Your task to perform on an android device: Open Reddit.com Image 0: 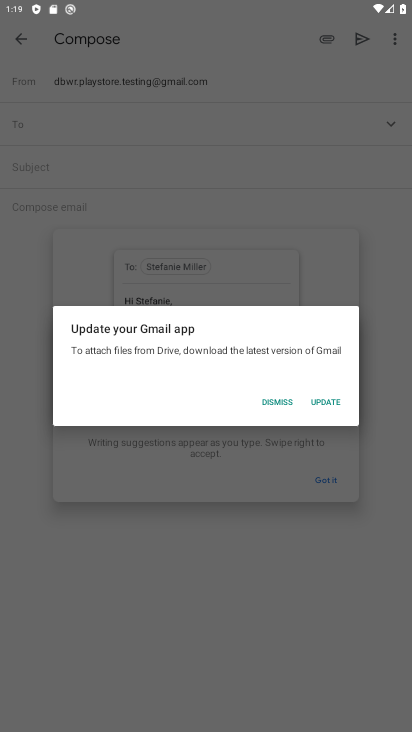
Step 0: press home button
Your task to perform on an android device: Open Reddit.com Image 1: 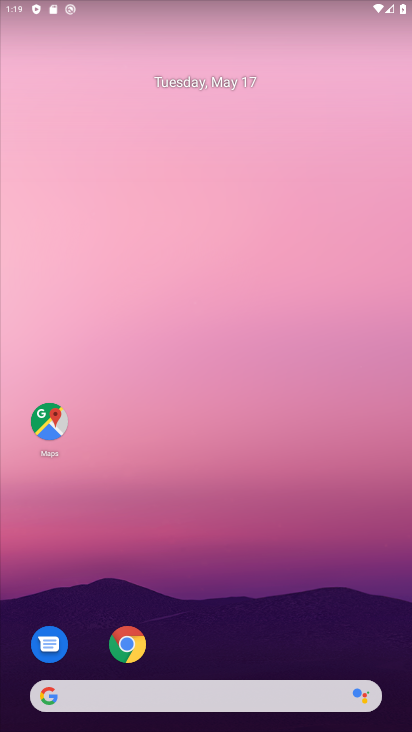
Step 1: click (131, 642)
Your task to perform on an android device: Open Reddit.com Image 2: 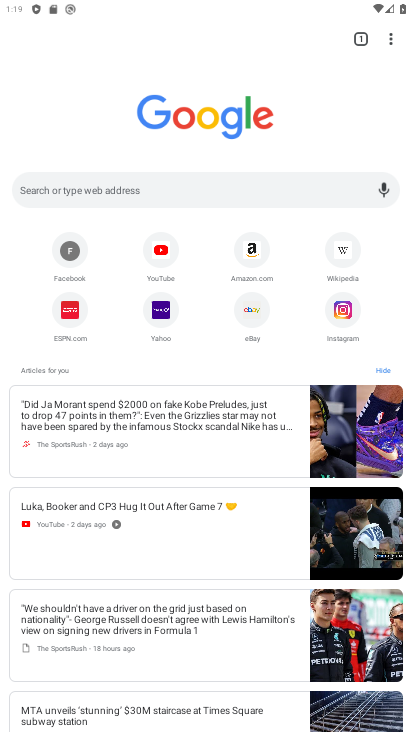
Step 2: click (196, 192)
Your task to perform on an android device: Open Reddit.com Image 3: 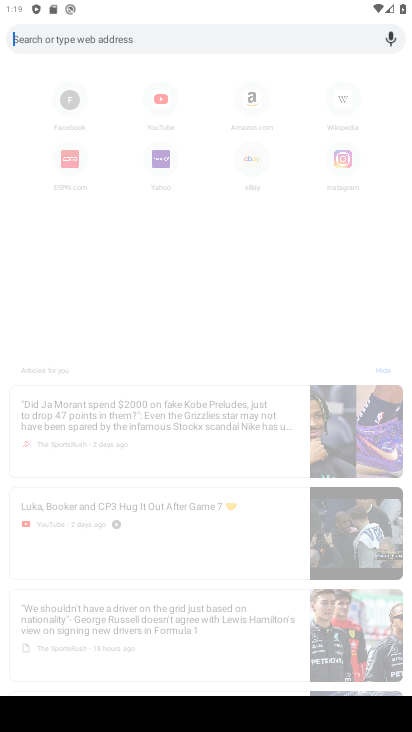
Step 3: type "reddit.com"
Your task to perform on an android device: Open Reddit.com Image 4: 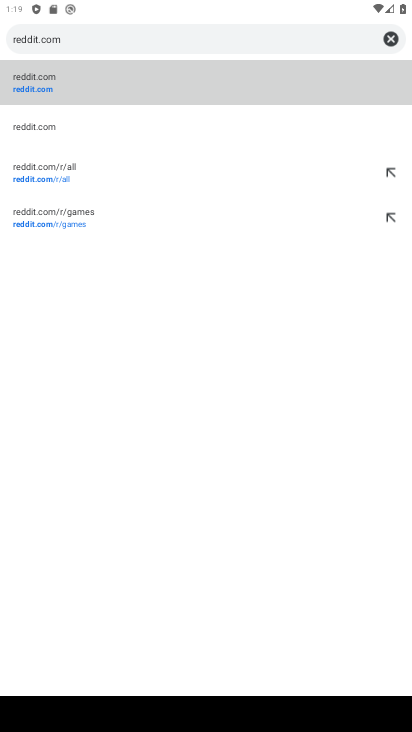
Step 4: click (59, 83)
Your task to perform on an android device: Open Reddit.com Image 5: 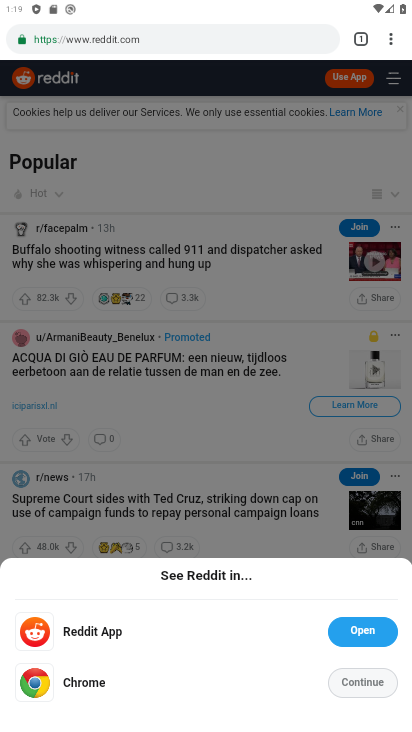
Step 5: click (365, 670)
Your task to perform on an android device: Open Reddit.com Image 6: 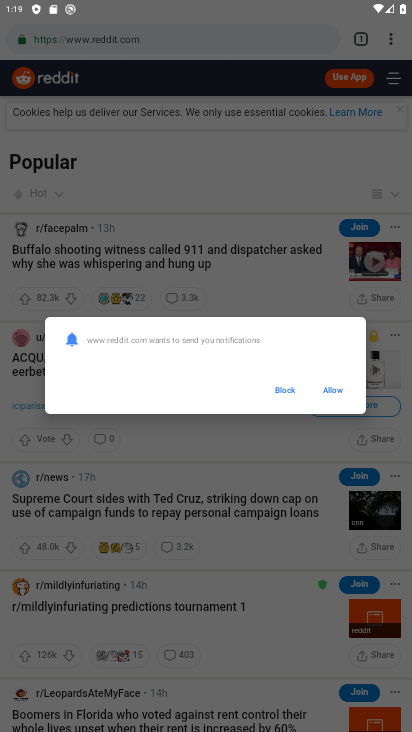
Step 6: task complete